Your task to perform on an android device: manage bookmarks in the chrome app Image 0: 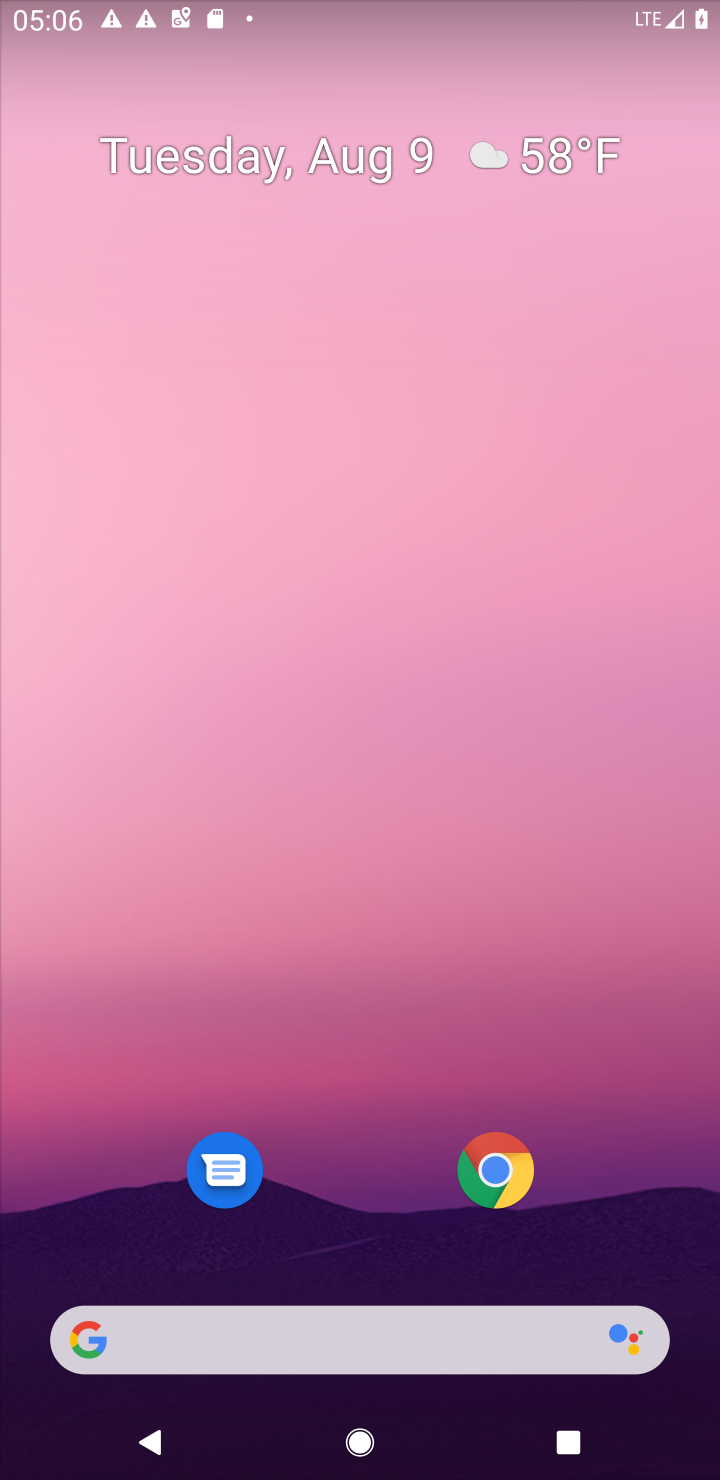
Step 0: click (501, 1171)
Your task to perform on an android device: manage bookmarks in the chrome app Image 1: 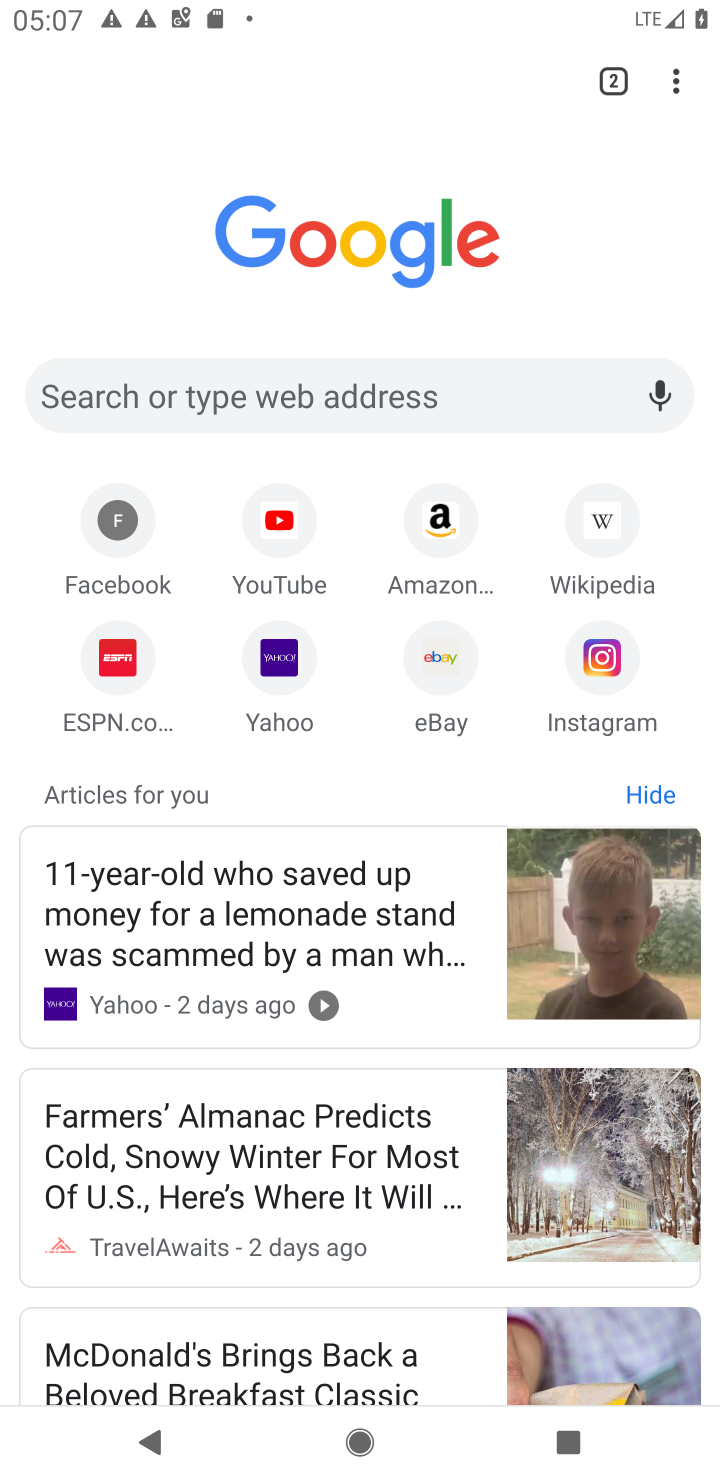
Step 1: drag from (674, 87) to (429, 309)
Your task to perform on an android device: manage bookmarks in the chrome app Image 2: 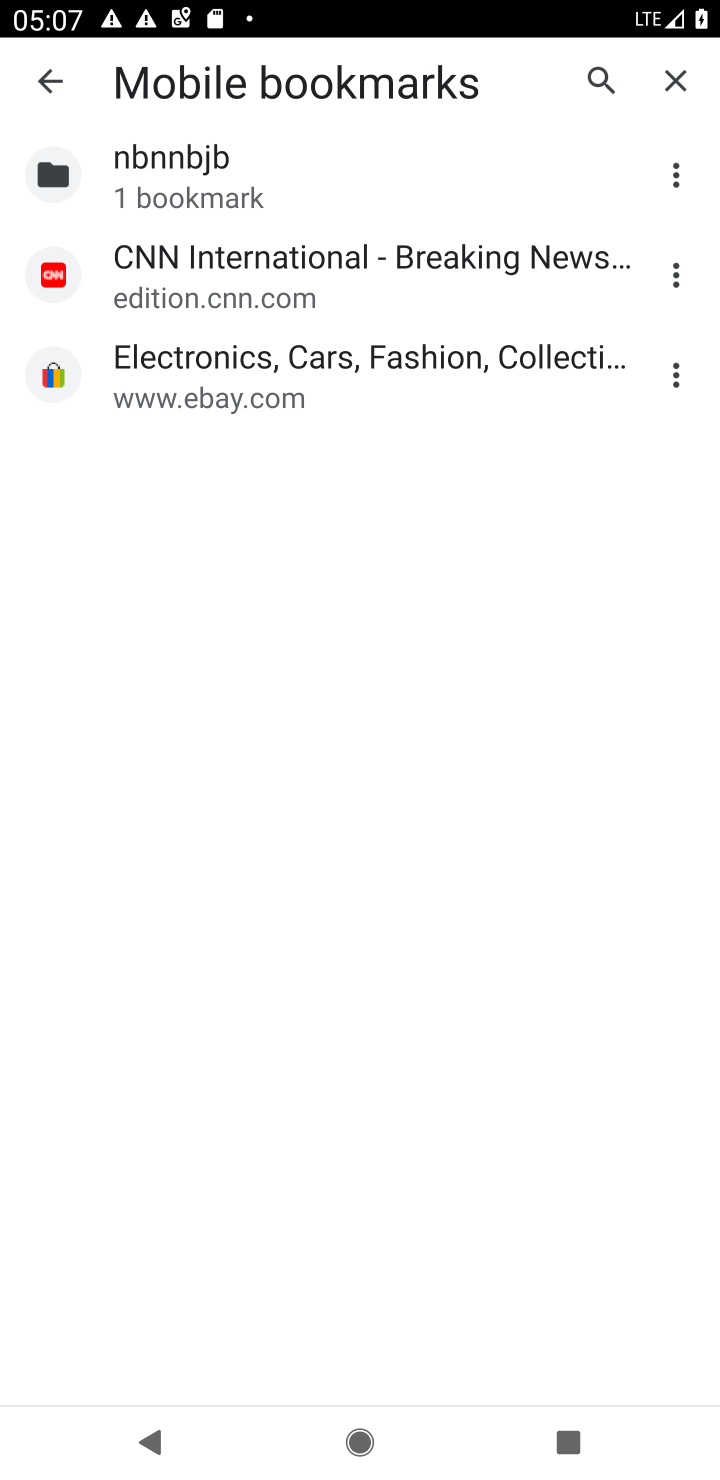
Step 2: click (674, 286)
Your task to perform on an android device: manage bookmarks in the chrome app Image 3: 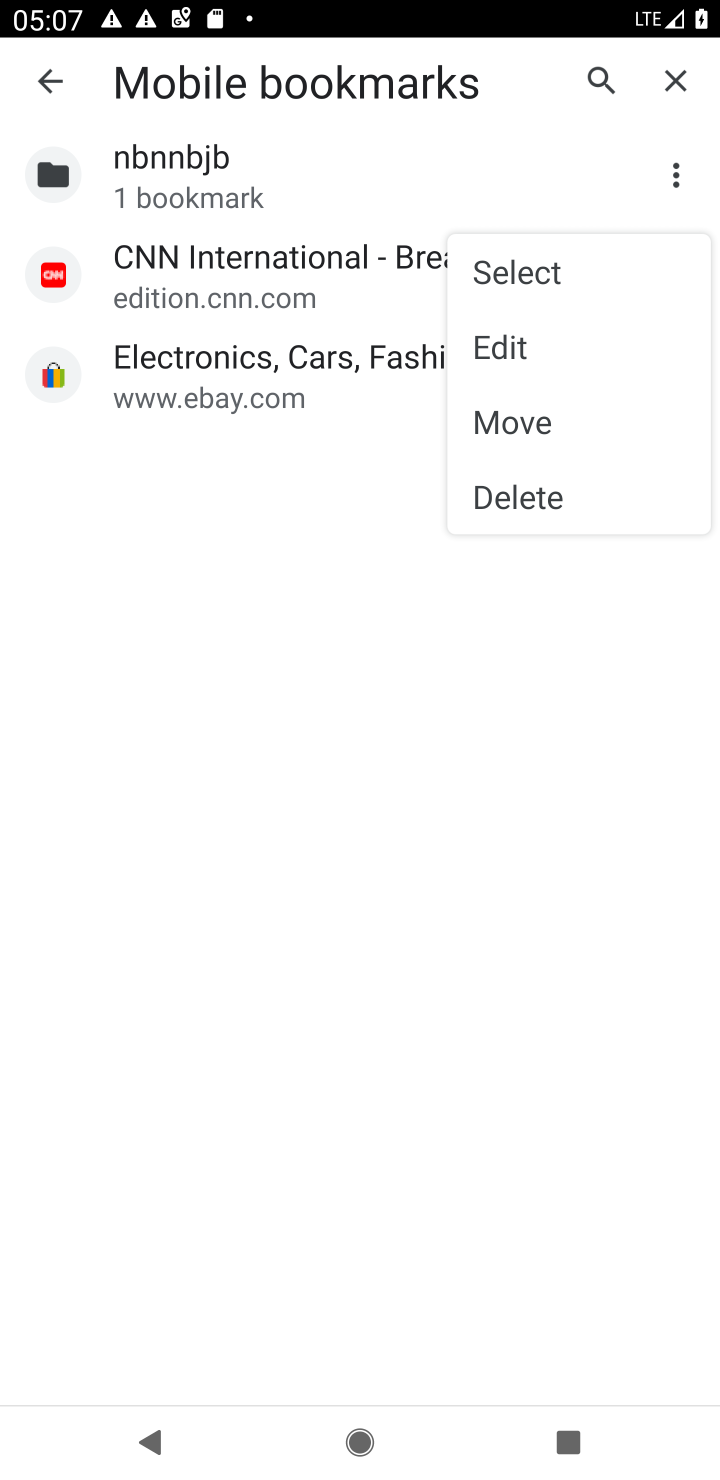
Step 3: click (501, 357)
Your task to perform on an android device: manage bookmarks in the chrome app Image 4: 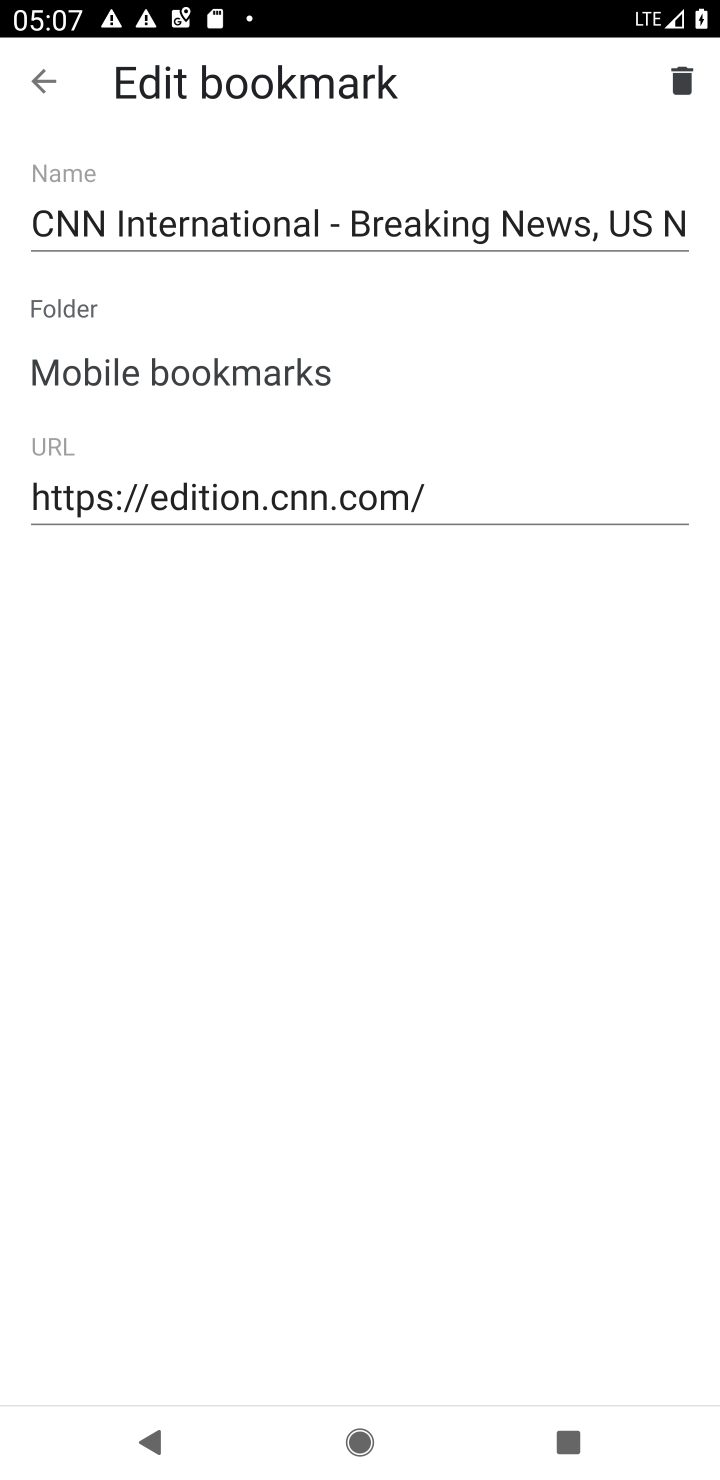
Step 4: task complete